Your task to perform on an android device: Go to sound settings Image 0: 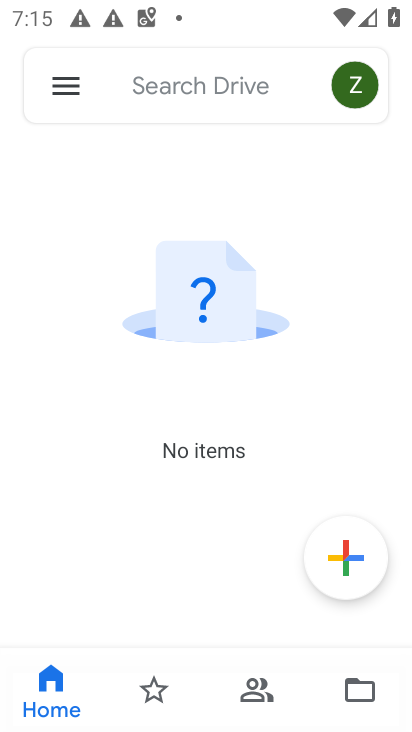
Step 0: press home button
Your task to perform on an android device: Go to sound settings Image 1: 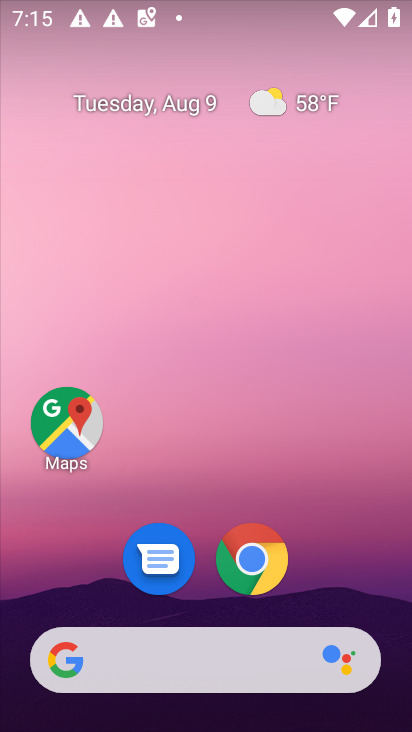
Step 1: drag from (204, 402) to (188, 186)
Your task to perform on an android device: Go to sound settings Image 2: 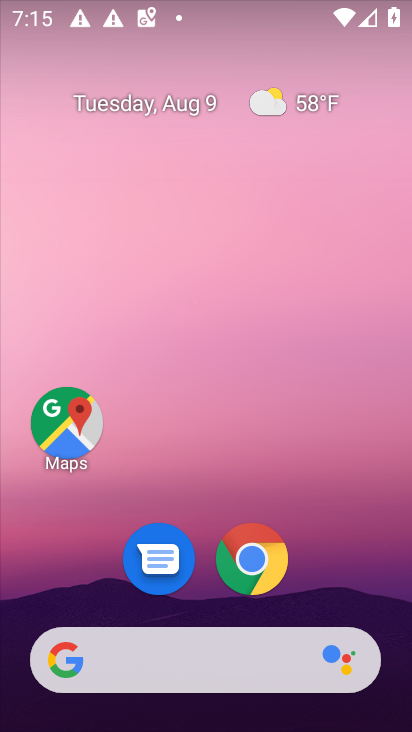
Step 2: drag from (197, 584) to (164, 3)
Your task to perform on an android device: Go to sound settings Image 3: 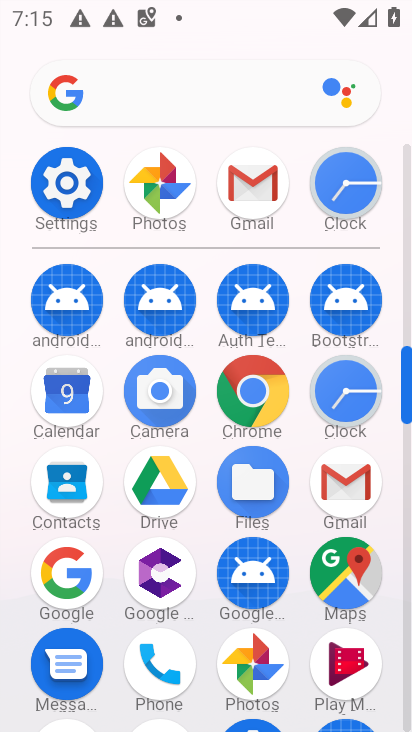
Step 3: click (63, 184)
Your task to perform on an android device: Go to sound settings Image 4: 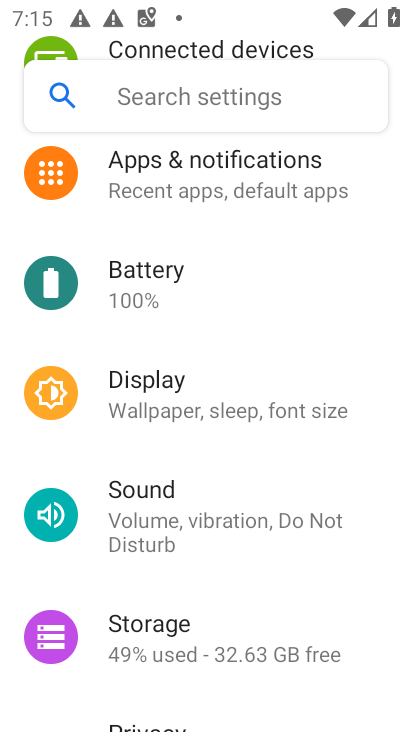
Step 4: click (156, 525)
Your task to perform on an android device: Go to sound settings Image 5: 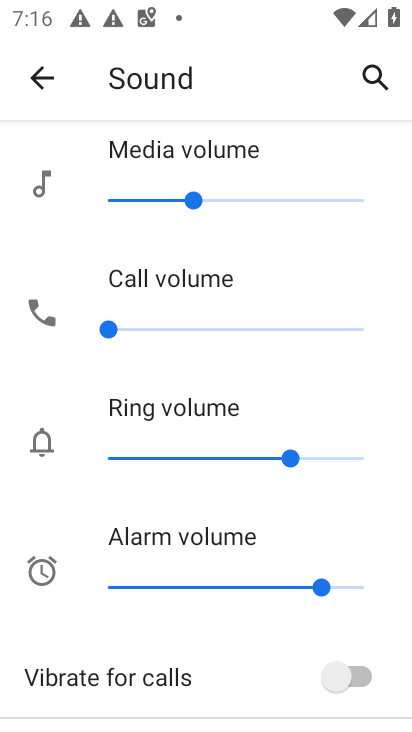
Step 5: task complete